Your task to perform on an android device: find photos in the google photos app Image 0: 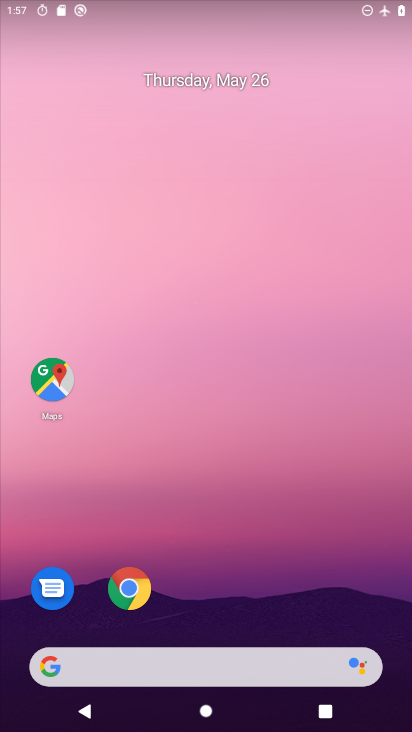
Step 0: drag from (389, 682) to (379, 418)
Your task to perform on an android device: find photos in the google photos app Image 1: 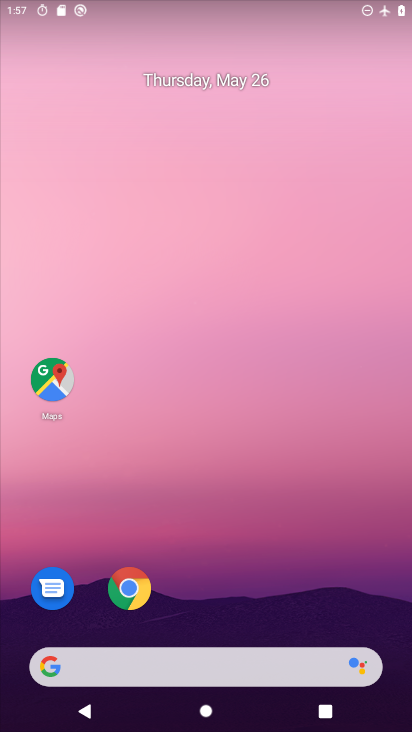
Step 1: drag from (398, 691) to (308, 210)
Your task to perform on an android device: find photos in the google photos app Image 2: 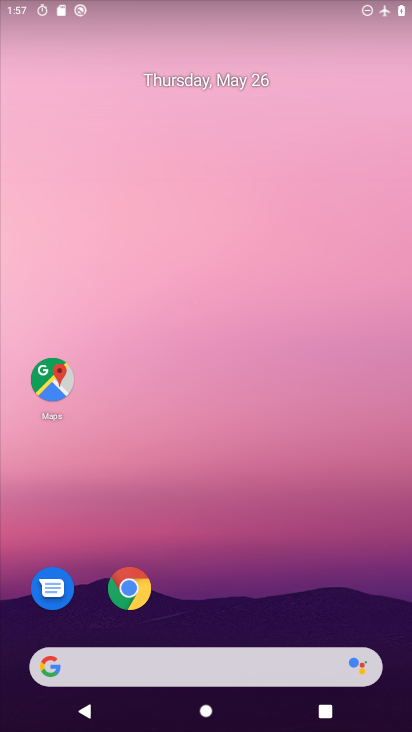
Step 2: drag from (394, 673) to (353, 158)
Your task to perform on an android device: find photos in the google photos app Image 3: 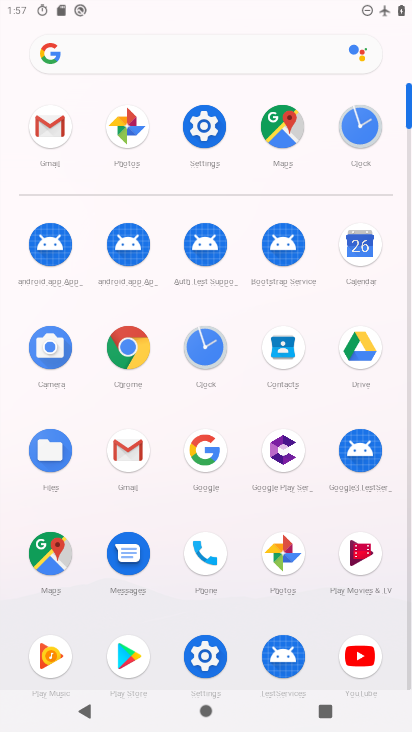
Step 3: click (270, 546)
Your task to perform on an android device: find photos in the google photos app Image 4: 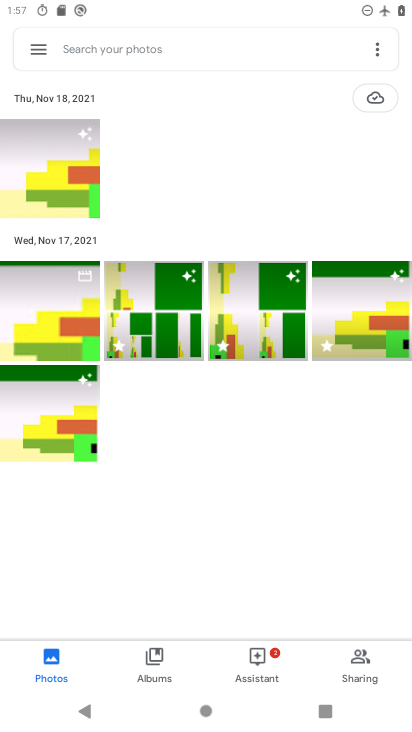
Step 4: click (55, 171)
Your task to perform on an android device: find photos in the google photos app Image 5: 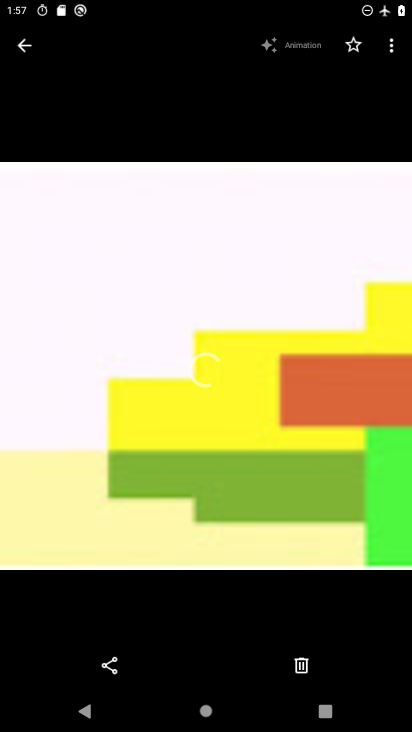
Step 5: click (16, 48)
Your task to perform on an android device: find photos in the google photos app Image 6: 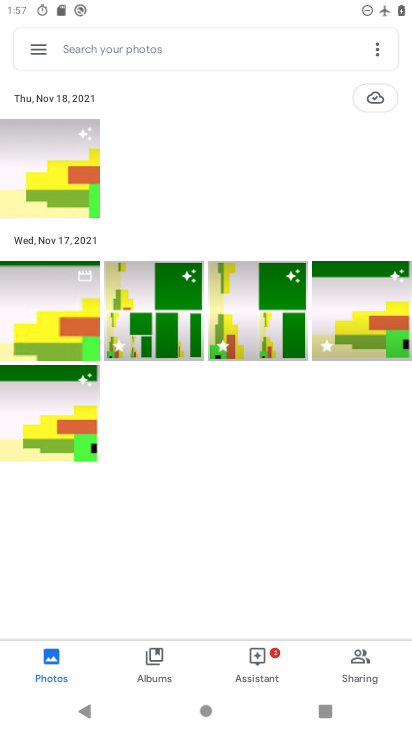
Step 6: click (59, 323)
Your task to perform on an android device: find photos in the google photos app Image 7: 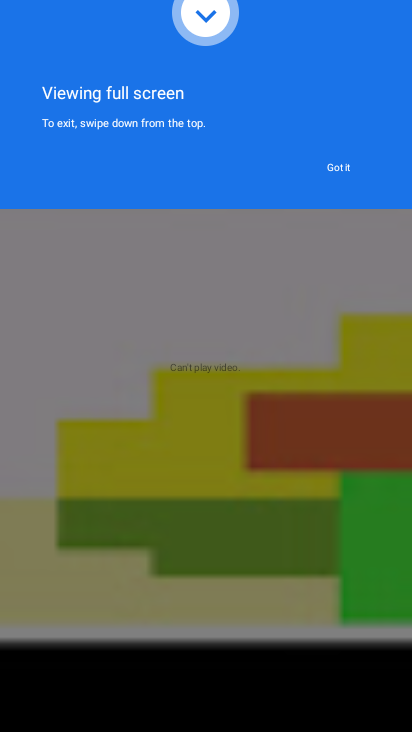
Step 7: click (216, 27)
Your task to perform on an android device: find photos in the google photos app Image 8: 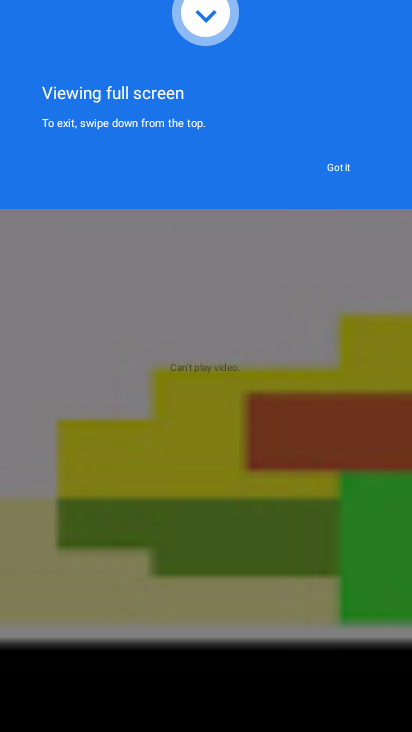
Step 8: click (339, 165)
Your task to perform on an android device: find photos in the google photos app Image 9: 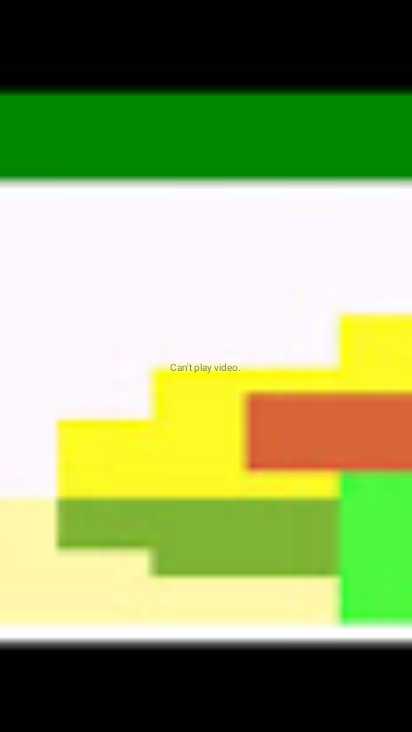
Step 9: press back button
Your task to perform on an android device: find photos in the google photos app Image 10: 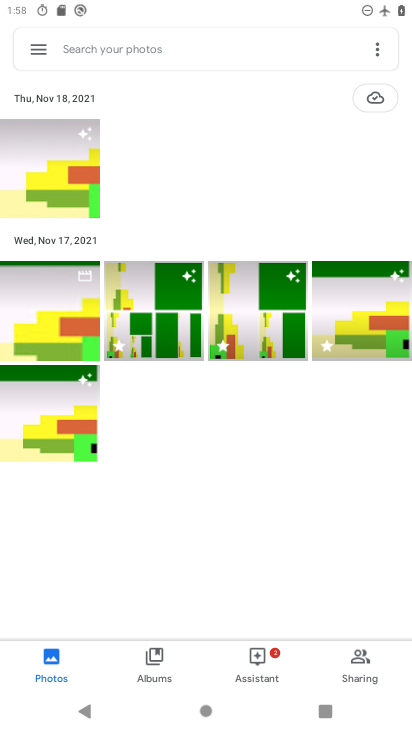
Step 10: click (164, 305)
Your task to perform on an android device: find photos in the google photos app Image 11: 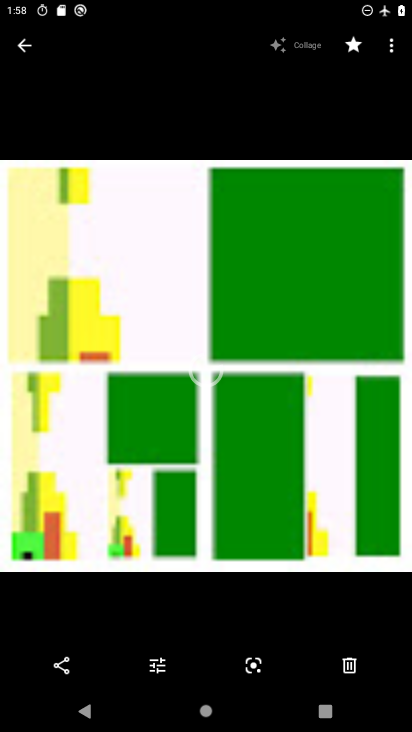
Step 11: click (25, 50)
Your task to perform on an android device: find photos in the google photos app Image 12: 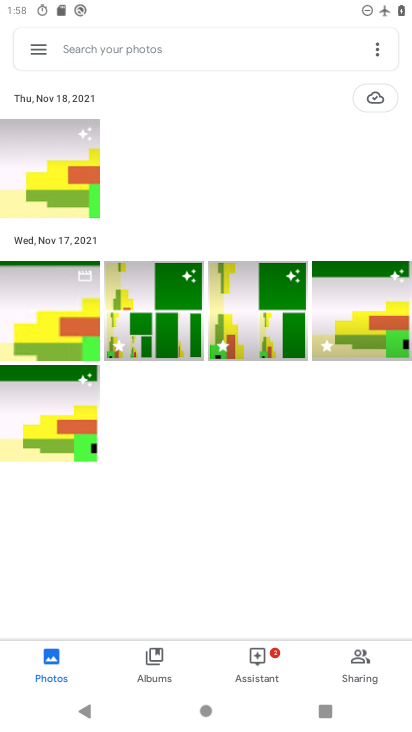
Step 12: task complete